Your task to perform on an android device: Is it going to rain this weekend? Image 0: 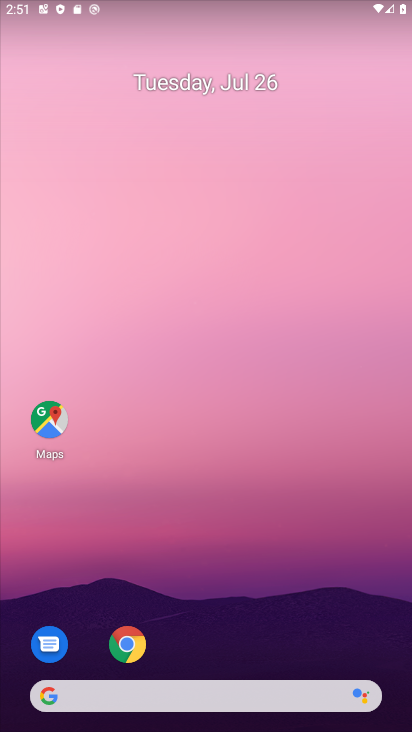
Step 0: click (47, 695)
Your task to perform on an android device: Is it going to rain this weekend? Image 1: 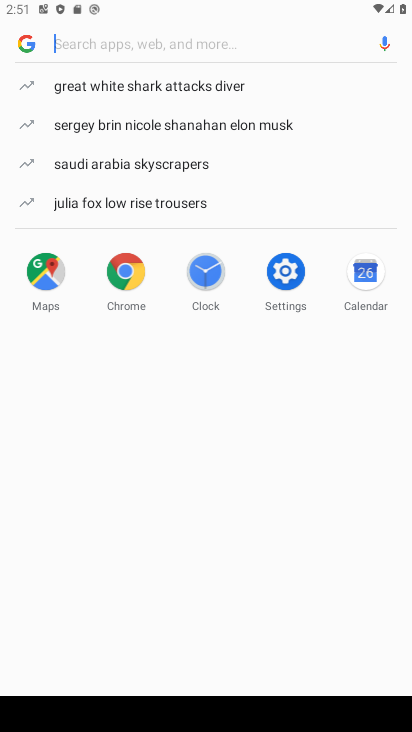
Step 1: type "Is it going to rain this weekend?"
Your task to perform on an android device: Is it going to rain this weekend? Image 2: 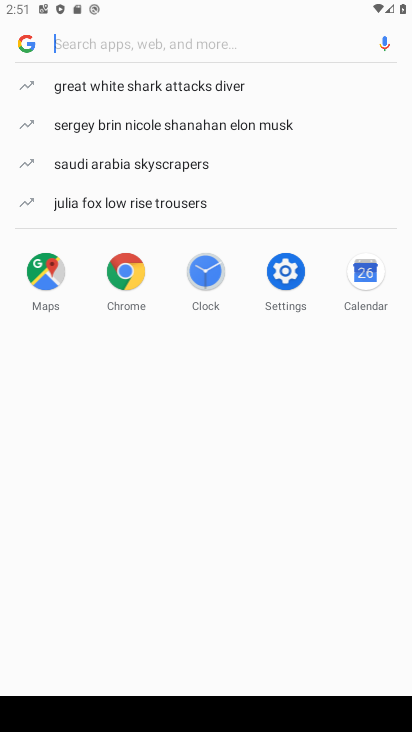
Step 2: click (123, 44)
Your task to perform on an android device: Is it going to rain this weekend? Image 3: 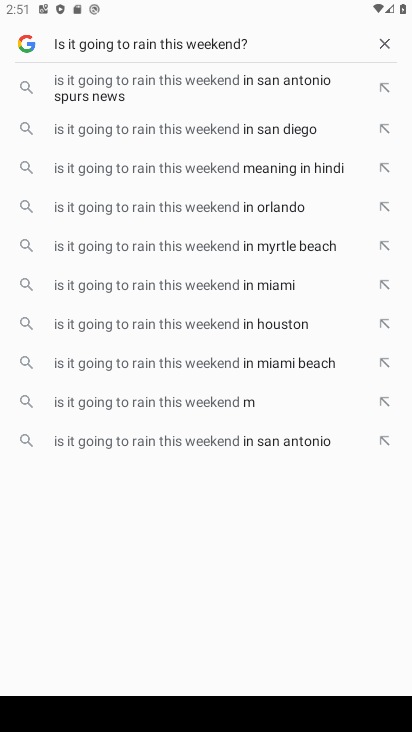
Step 3: press enter
Your task to perform on an android device: Is it going to rain this weekend? Image 4: 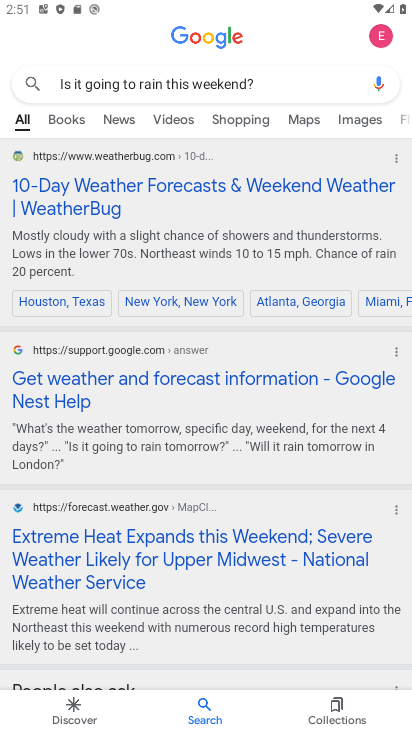
Step 4: task complete